Your task to perform on an android device: Open the stopwatch Image 0: 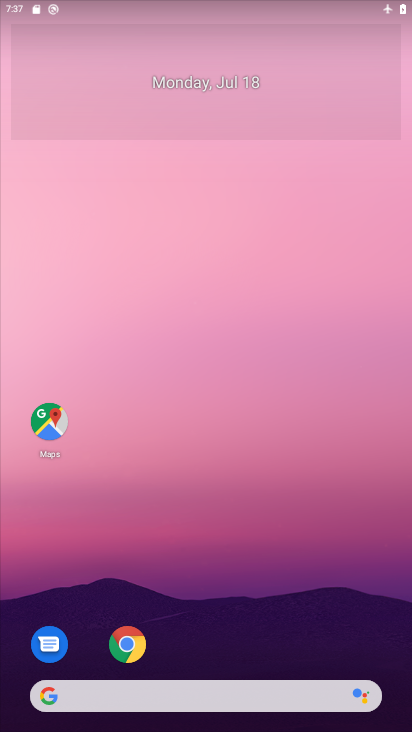
Step 0: drag from (368, 611) to (391, 99)
Your task to perform on an android device: Open the stopwatch Image 1: 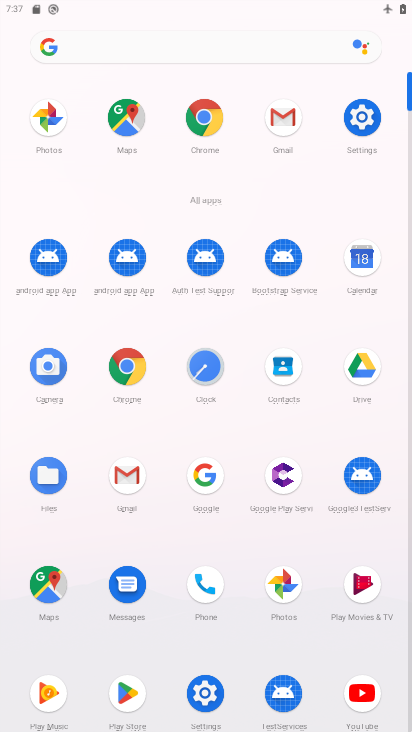
Step 1: click (208, 366)
Your task to perform on an android device: Open the stopwatch Image 2: 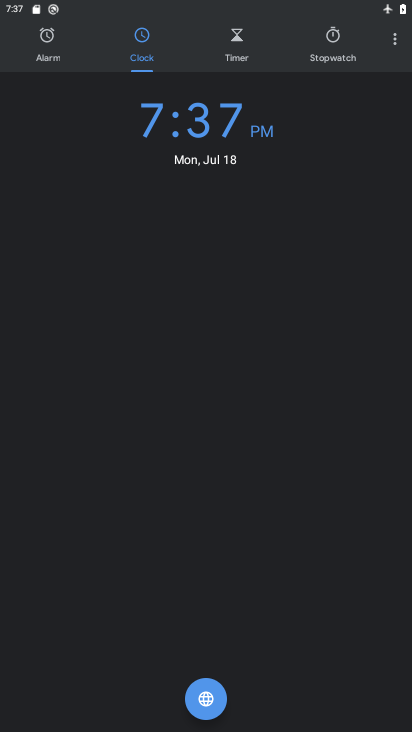
Step 2: click (323, 46)
Your task to perform on an android device: Open the stopwatch Image 3: 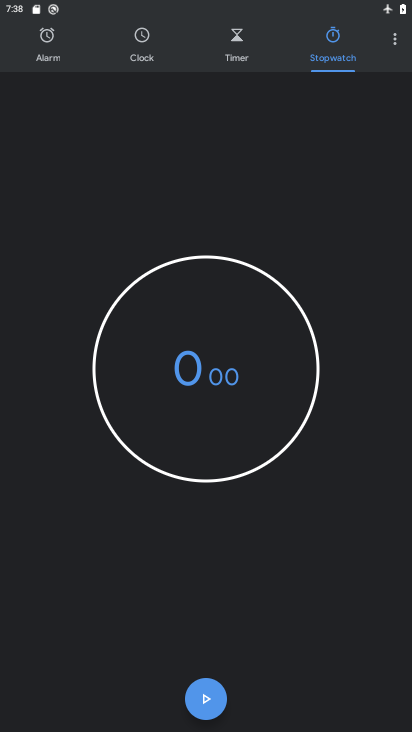
Step 3: task complete